Your task to perform on an android device: What's on my calendar tomorrow? Image 0: 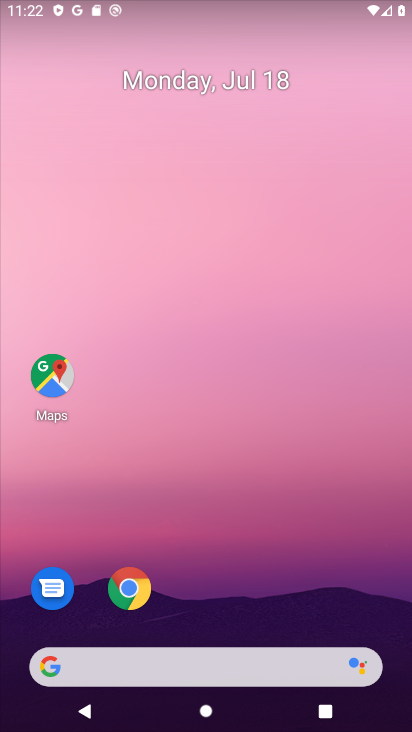
Step 0: drag from (336, 605) to (266, 188)
Your task to perform on an android device: What's on my calendar tomorrow? Image 1: 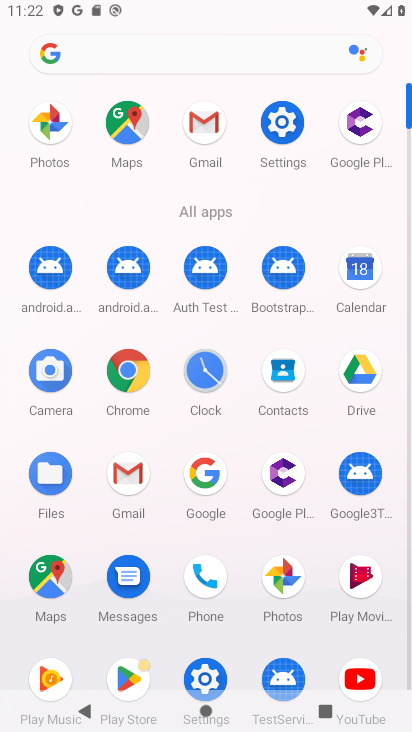
Step 1: click (365, 266)
Your task to perform on an android device: What's on my calendar tomorrow? Image 2: 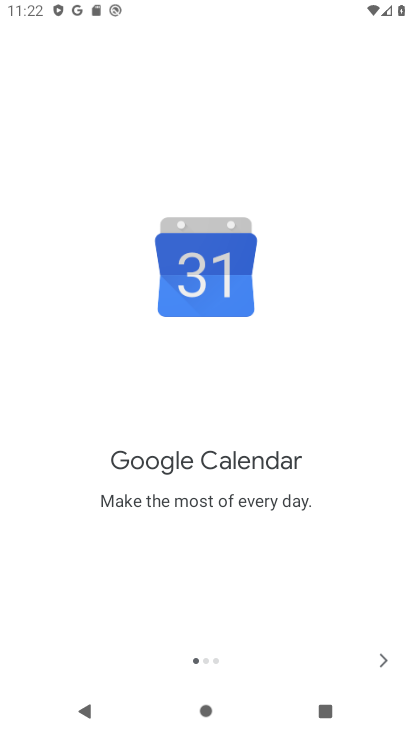
Step 2: click (389, 656)
Your task to perform on an android device: What's on my calendar tomorrow? Image 3: 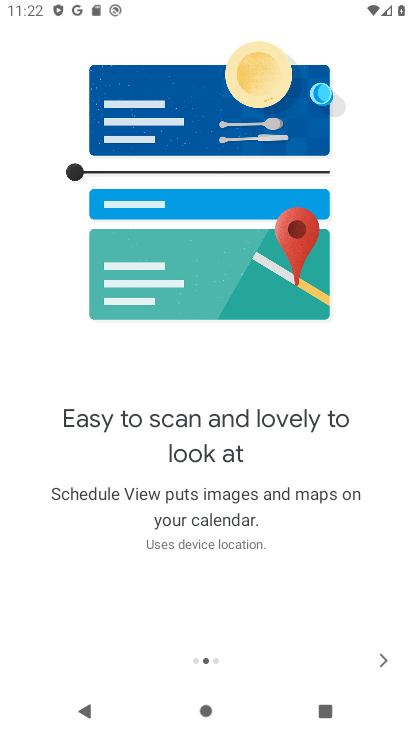
Step 3: click (389, 656)
Your task to perform on an android device: What's on my calendar tomorrow? Image 4: 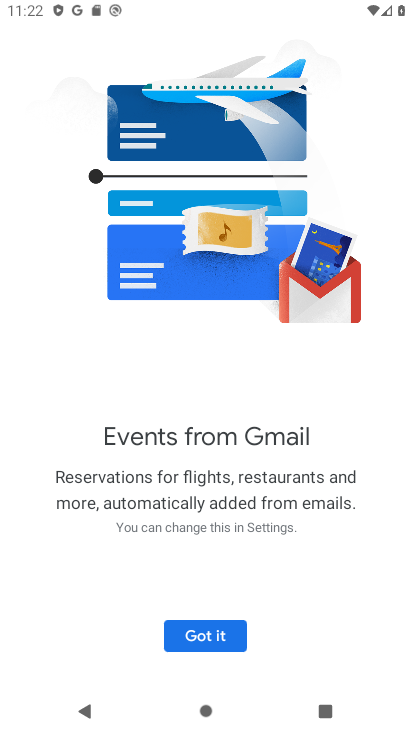
Step 4: click (225, 631)
Your task to perform on an android device: What's on my calendar tomorrow? Image 5: 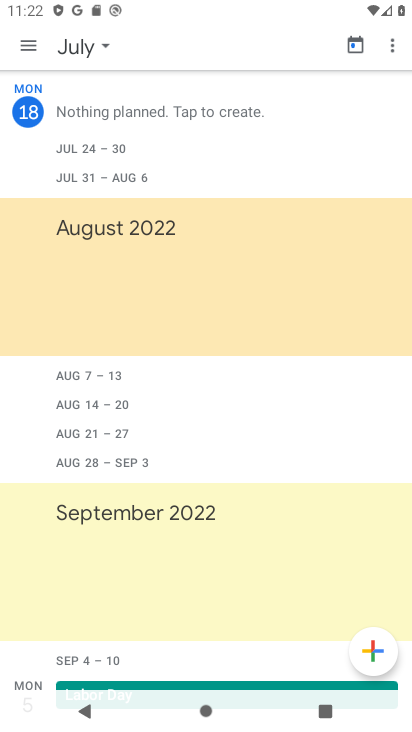
Step 5: click (26, 48)
Your task to perform on an android device: What's on my calendar tomorrow? Image 6: 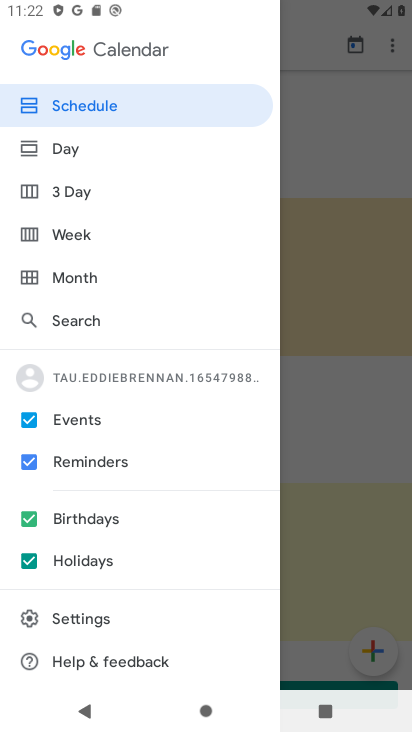
Step 6: click (83, 154)
Your task to perform on an android device: What's on my calendar tomorrow? Image 7: 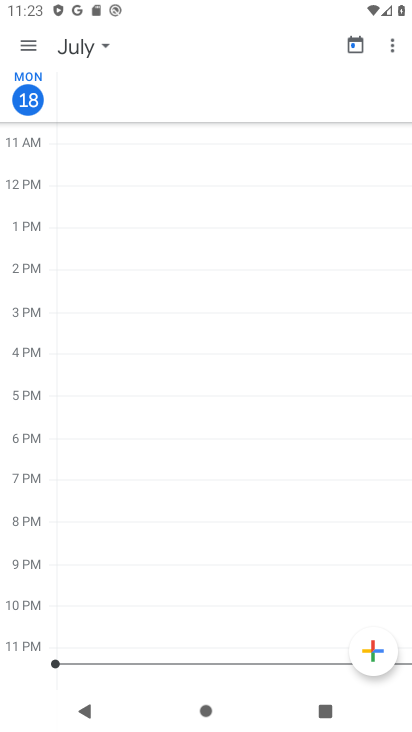
Step 7: task complete